Your task to perform on an android device: Do I have any events tomorrow? Image 0: 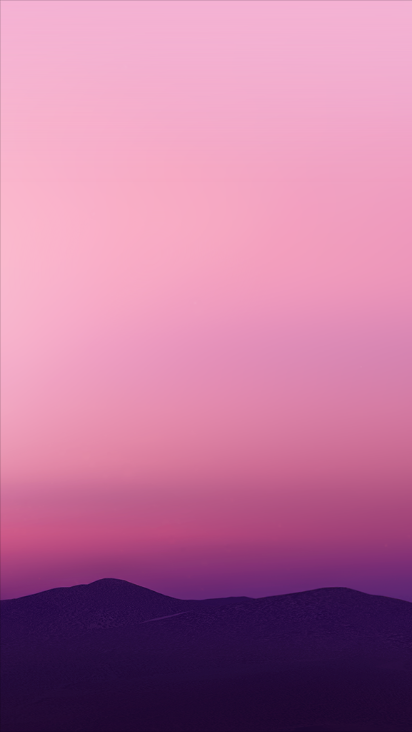
Step 0: press home button
Your task to perform on an android device: Do I have any events tomorrow? Image 1: 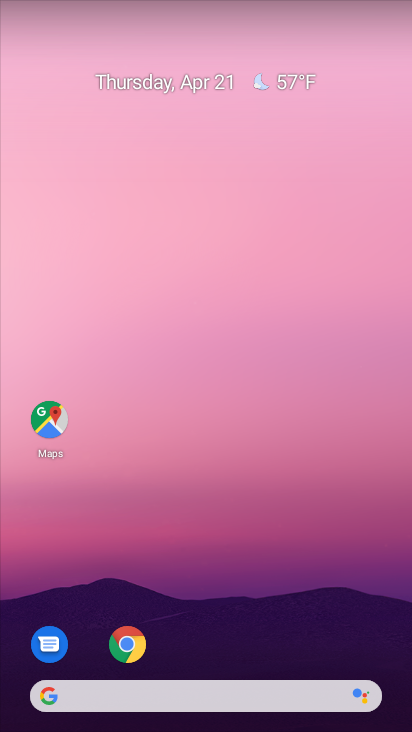
Step 1: drag from (216, 466) to (210, 49)
Your task to perform on an android device: Do I have any events tomorrow? Image 2: 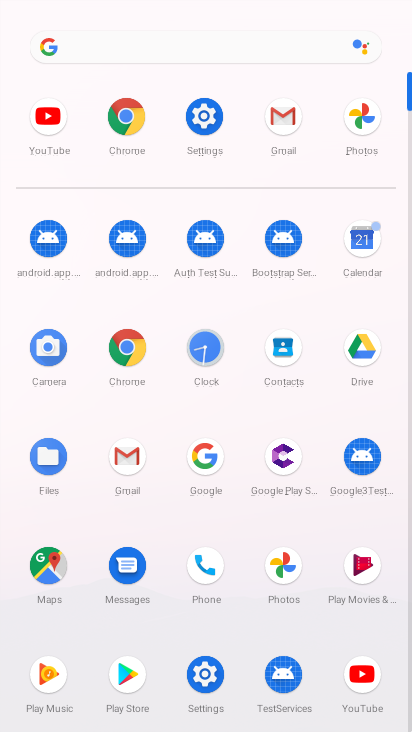
Step 2: click (367, 240)
Your task to perform on an android device: Do I have any events tomorrow? Image 3: 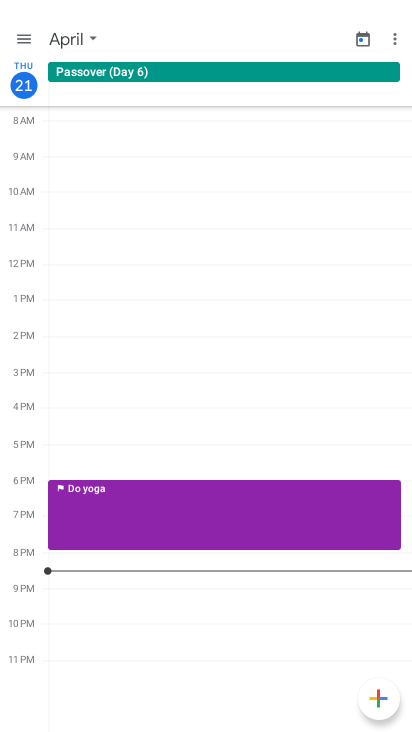
Step 3: click (83, 39)
Your task to perform on an android device: Do I have any events tomorrow? Image 4: 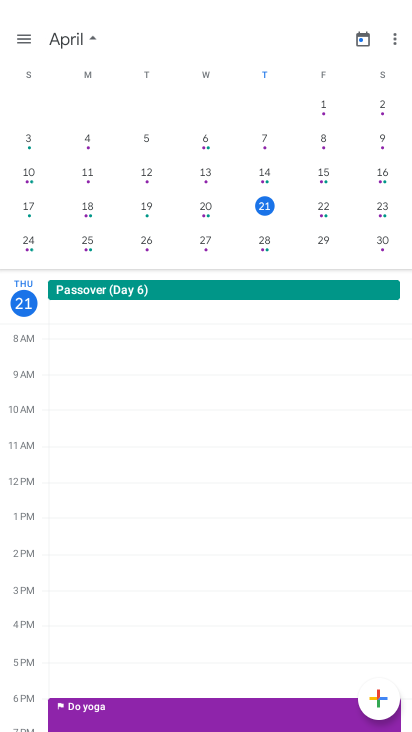
Step 4: click (322, 207)
Your task to perform on an android device: Do I have any events tomorrow? Image 5: 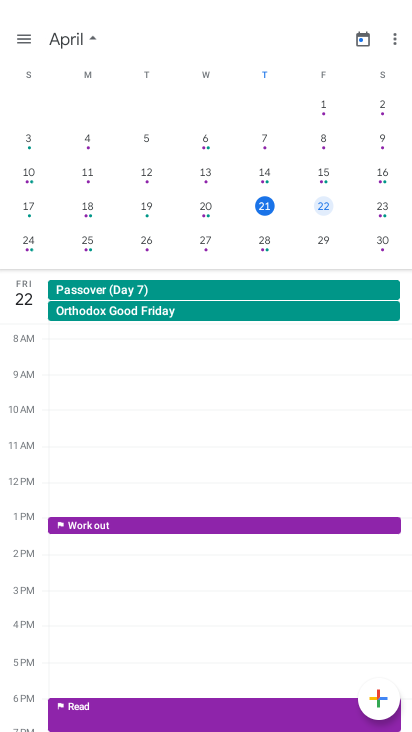
Step 5: task complete